Your task to perform on an android device: Open my contact list Image 0: 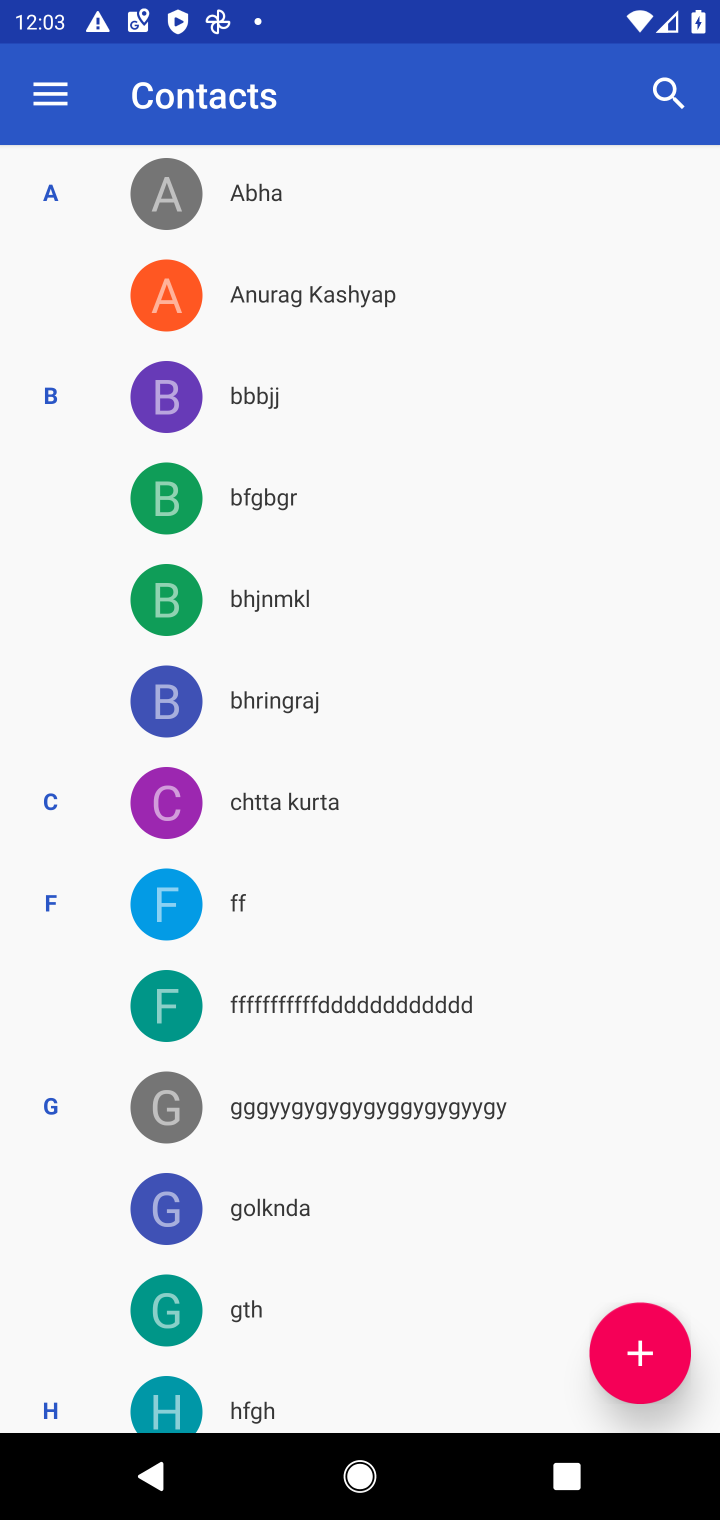
Step 0: press home button
Your task to perform on an android device: Open my contact list Image 1: 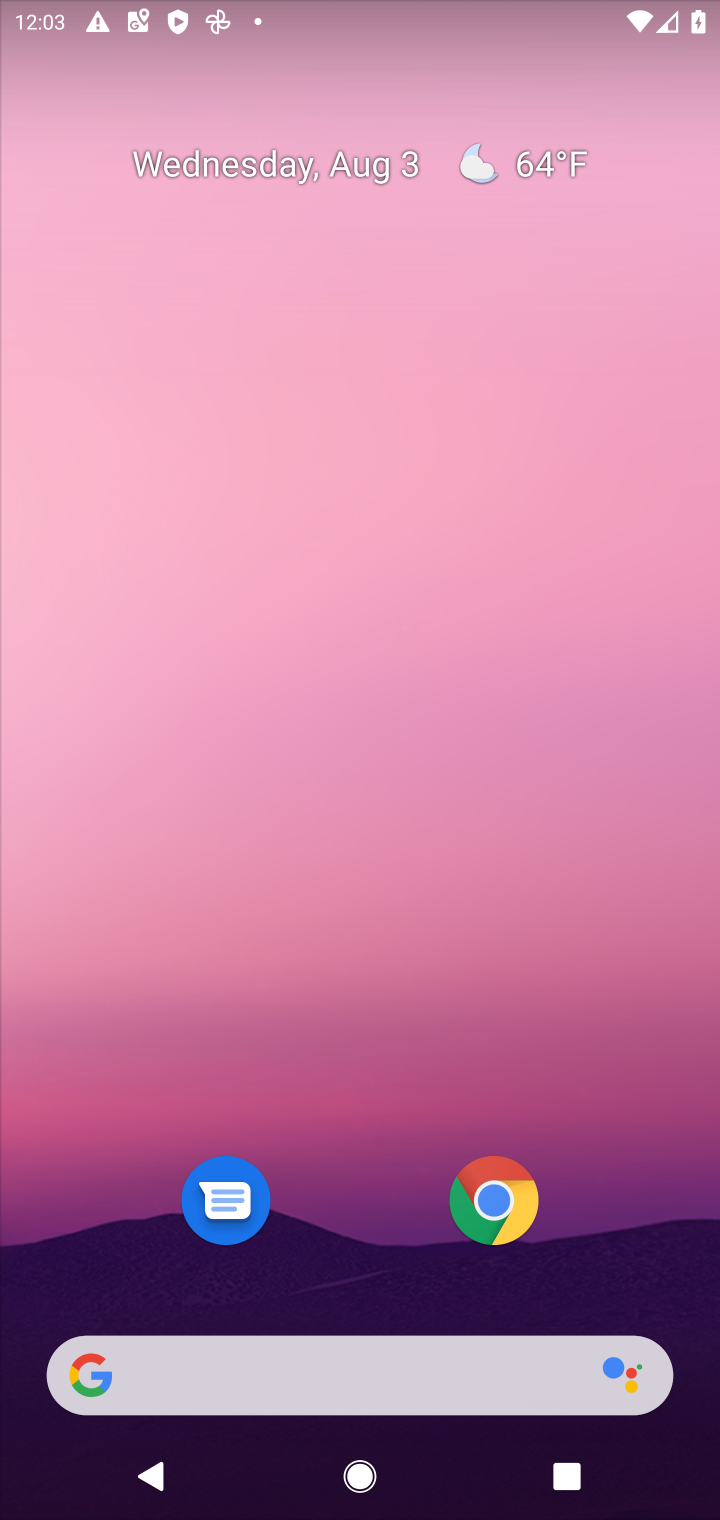
Step 1: drag from (648, 947) to (664, 104)
Your task to perform on an android device: Open my contact list Image 2: 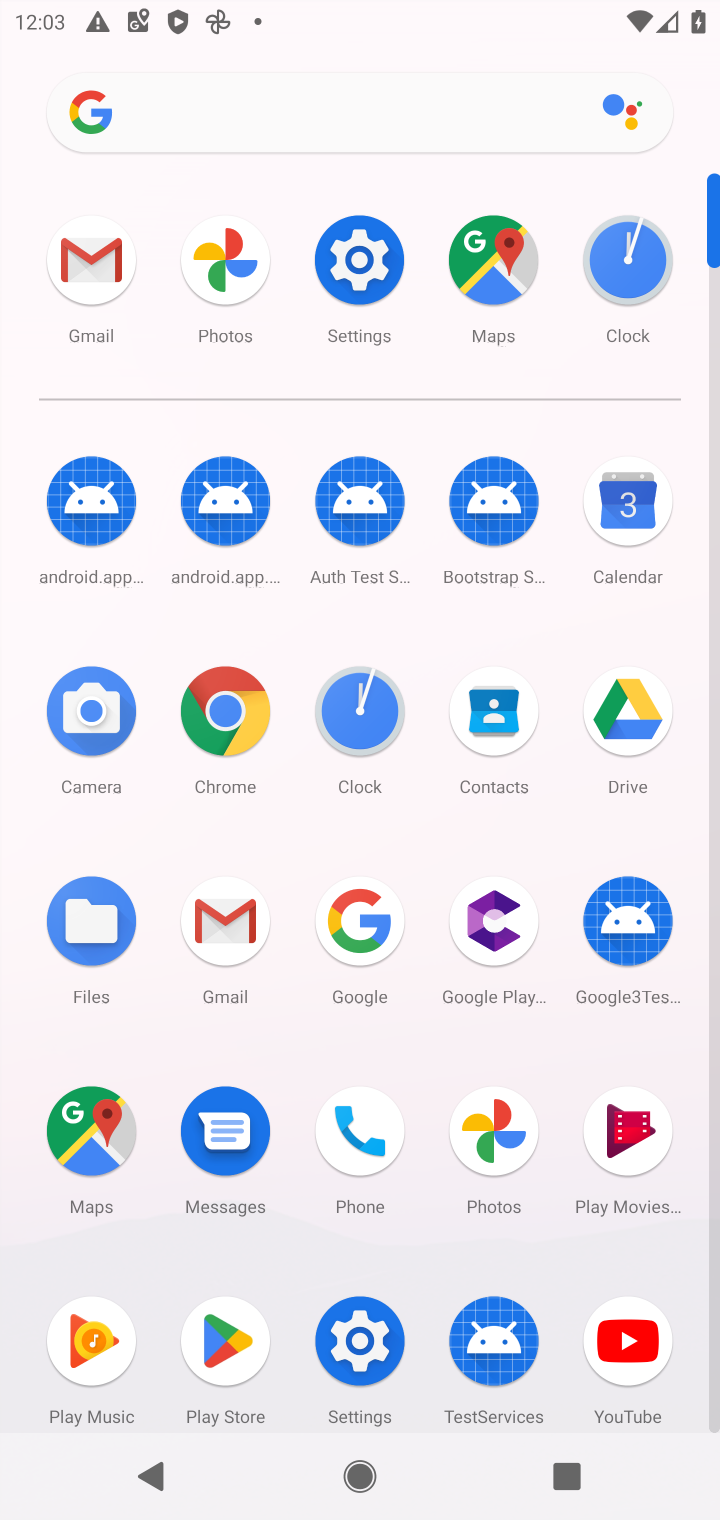
Step 2: click (490, 714)
Your task to perform on an android device: Open my contact list Image 3: 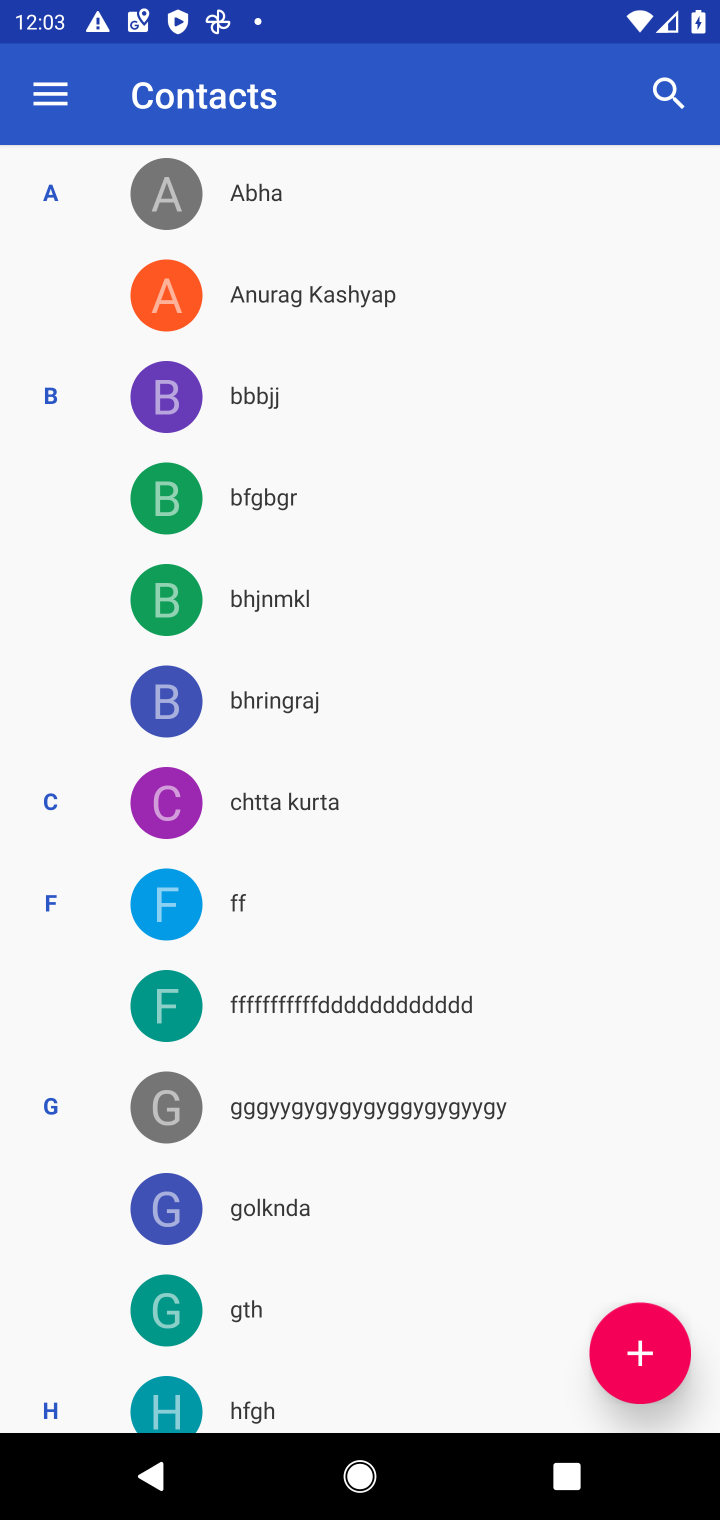
Step 3: task complete